Your task to perform on an android device: allow notifications from all sites in the chrome app Image 0: 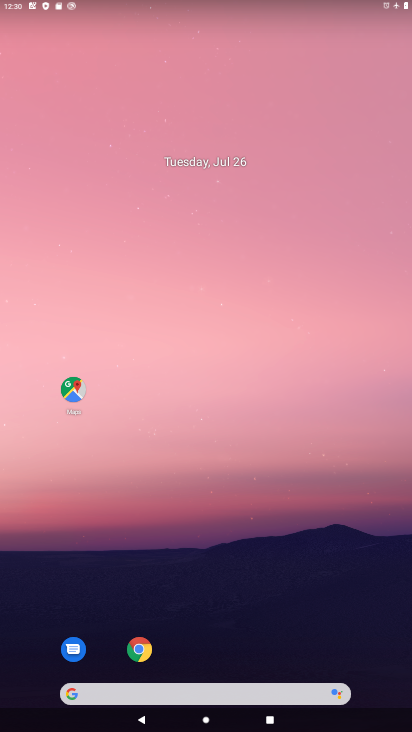
Step 0: drag from (225, 713) to (280, 8)
Your task to perform on an android device: allow notifications from all sites in the chrome app Image 1: 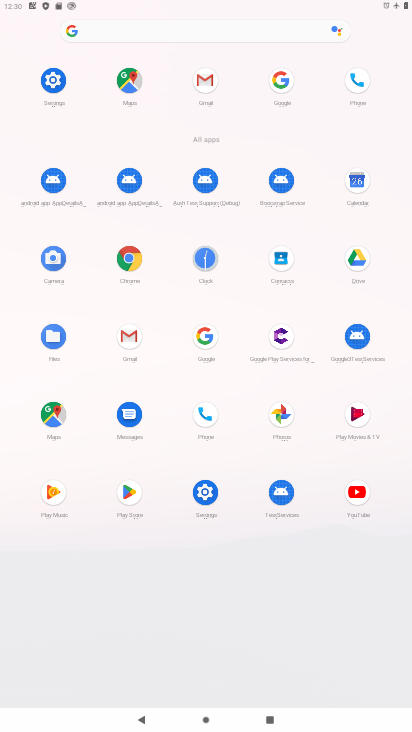
Step 1: click (132, 259)
Your task to perform on an android device: allow notifications from all sites in the chrome app Image 2: 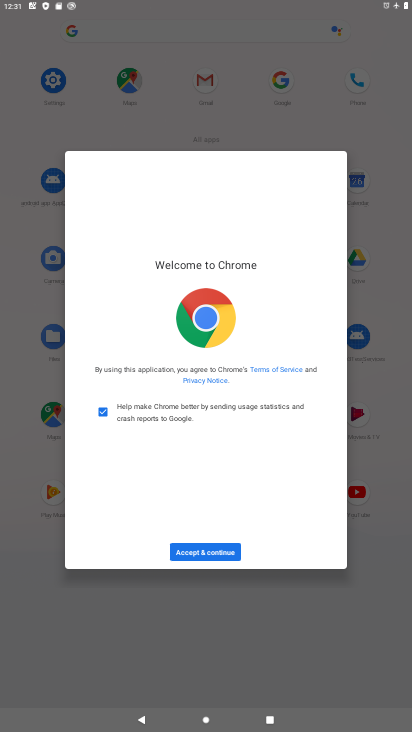
Step 2: click (214, 550)
Your task to perform on an android device: allow notifications from all sites in the chrome app Image 3: 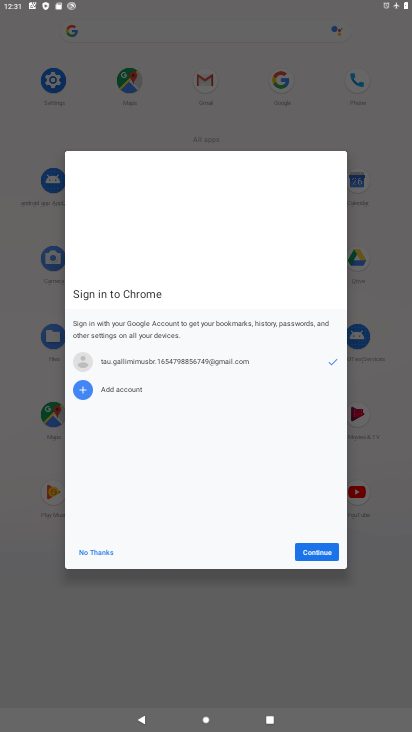
Step 3: click (316, 550)
Your task to perform on an android device: allow notifications from all sites in the chrome app Image 4: 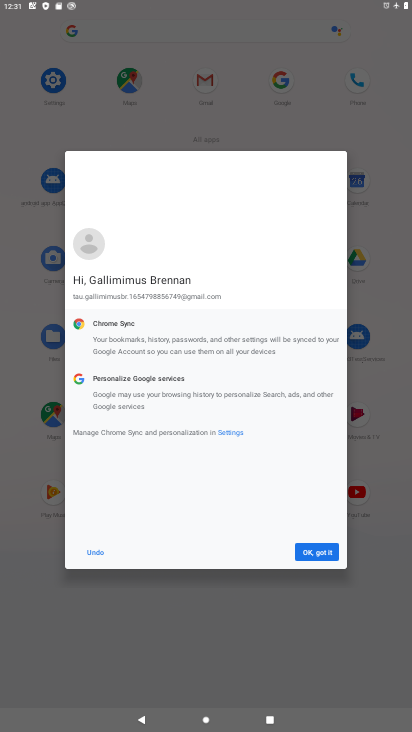
Step 4: click (316, 550)
Your task to perform on an android device: allow notifications from all sites in the chrome app Image 5: 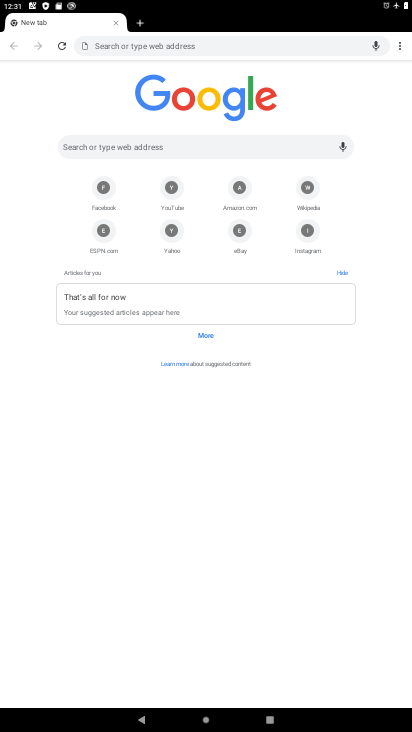
Step 5: click (397, 49)
Your task to perform on an android device: allow notifications from all sites in the chrome app Image 6: 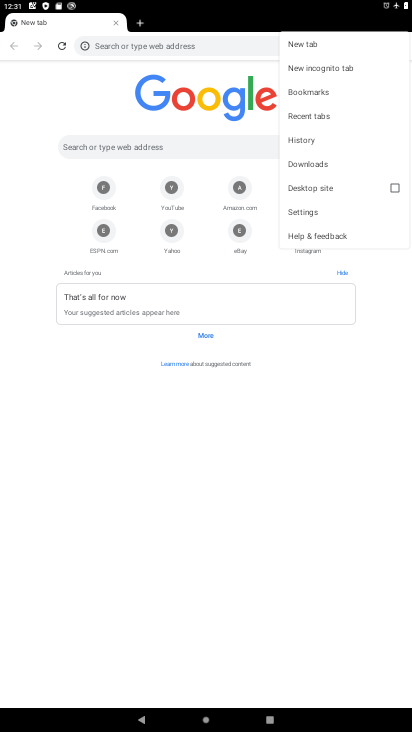
Step 6: click (305, 209)
Your task to perform on an android device: allow notifications from all sites in the chrome app Image 7: 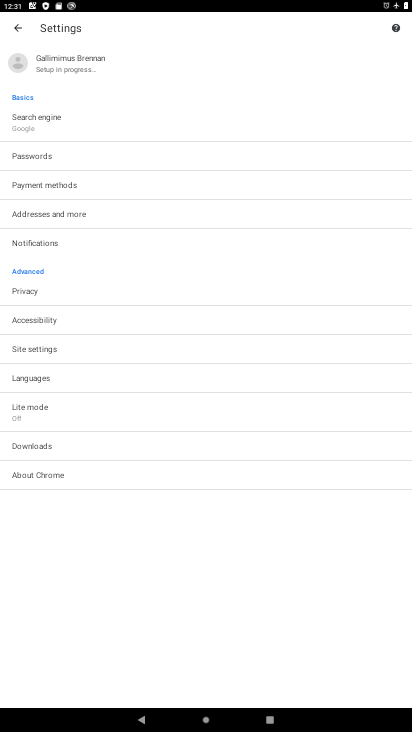
Step 7: click (50, 351)
Your task to perform on an android device: allow notifications from all sites in the chrome app Image 8: 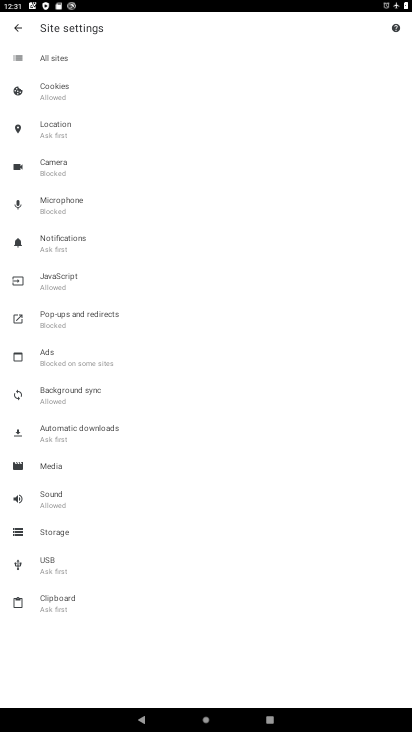
Step 8: click (57, 239)
Your task to perform on an android device: allow notifications from all sites in the chrome app Image 9: 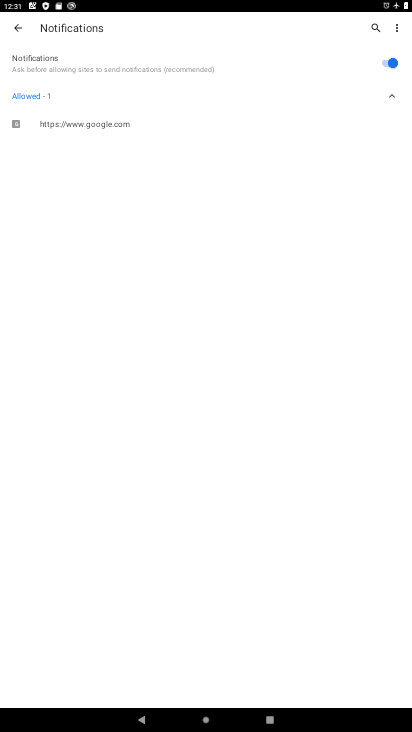
Step 9: task complete